Your task to perform on an android device: Go to accessibility settings Image 0: 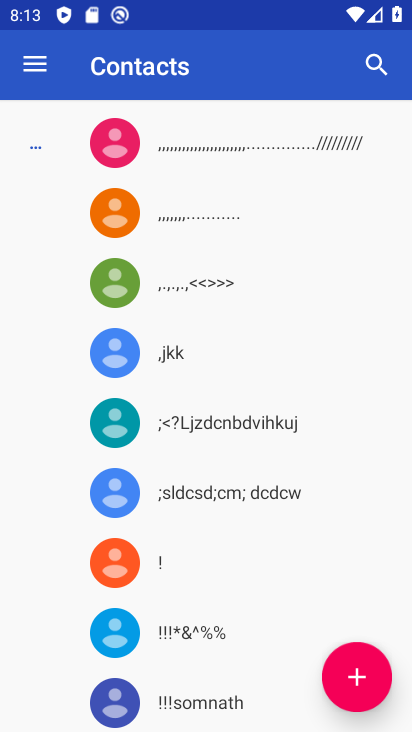
Step 0: press home button
Your task to perform on an android device: Go to accessibility settings Image 1: 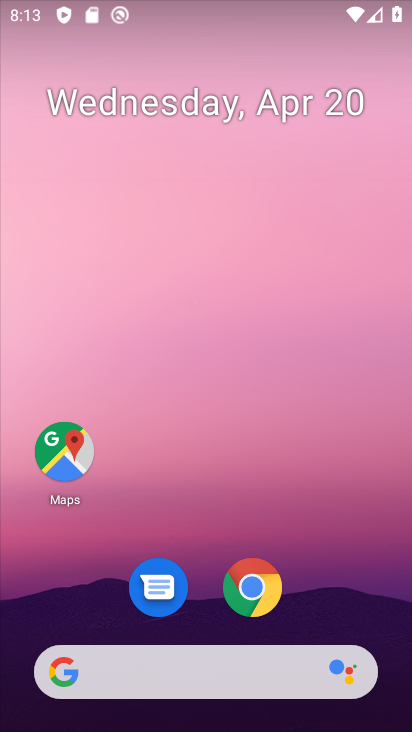
Step 1: drag from (362, 592) to (341, 192)
Your task to perform on an android device: Go to accessibility settings Image 2: 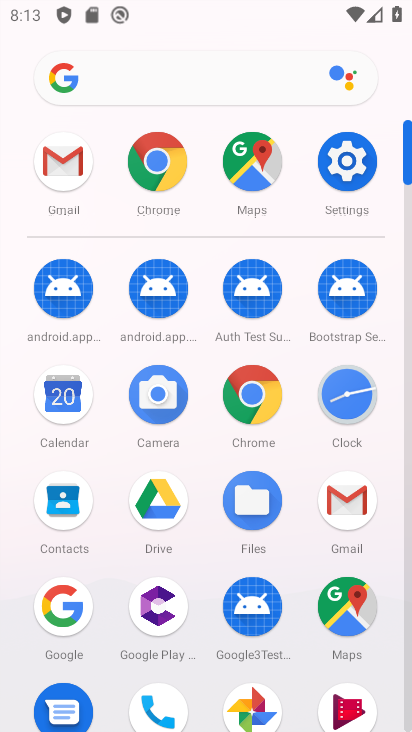
Step 2: click (346, 168)
Your task to perform on an android device: Go to accessibility settings Image 3: 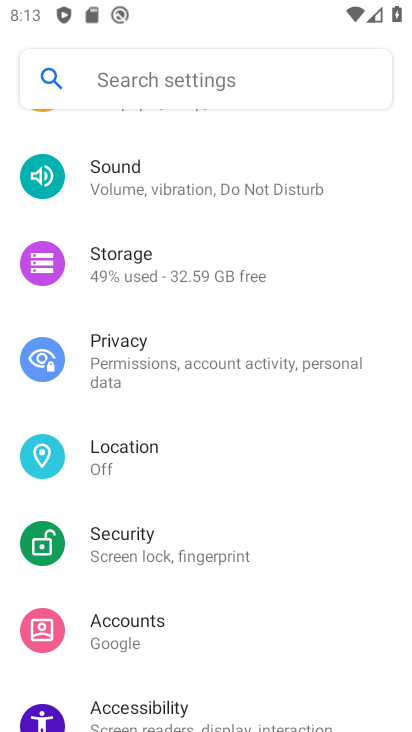
Step 3: drag from (350, 541) to (365, 375)
Your task to perform on an android device: Go to accessibility settings Image 4: 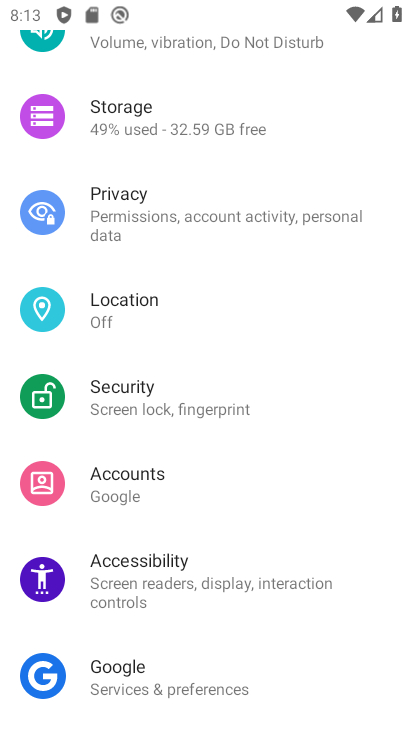
Step 4: drag from (350, 616) to (362, 418)
Your task to perform on an android device: Go to accessibility settings Image 5: 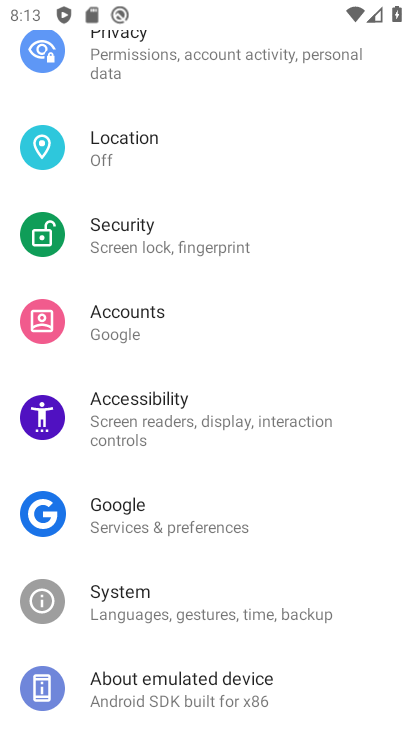
Step 5: drag from (343, 634) to (344, 477)
Your task to perform on an android device: Go to accessibility settings Image 6: 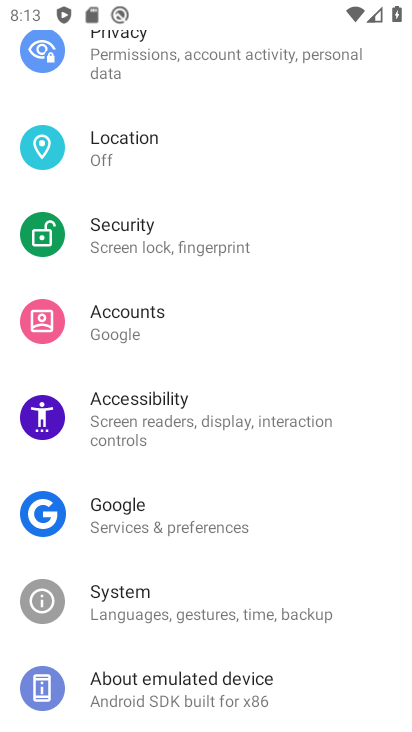
Step 6: drag from (353, 343) to (347, 512)
Your task to perform on an android device: Go to accessibility settings Image 7: 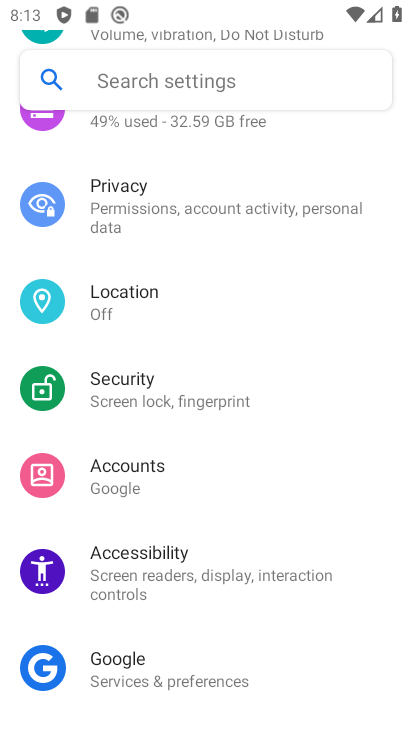
Step 7: drag from (357, 308) to (345, 440)
Your task to perform on an android device: Go to accessibility settings Image 8: 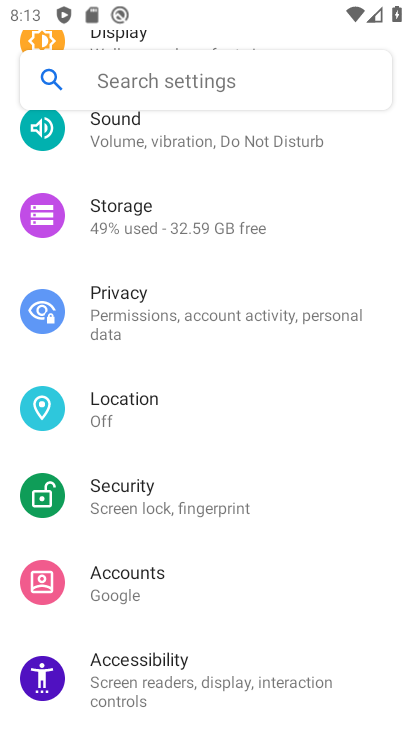
Step 8: drag from (381, 247) to (355, 422)
Your task to perform on an android device: Go to accessibility settings Image 9: 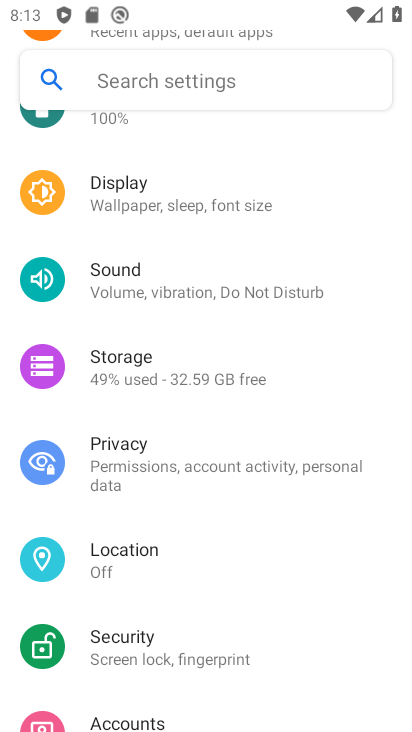
Step 9: drag from (376, 253) to (361, 431)
Your task to perform on an android device: Go to accessibility settings Image 10: 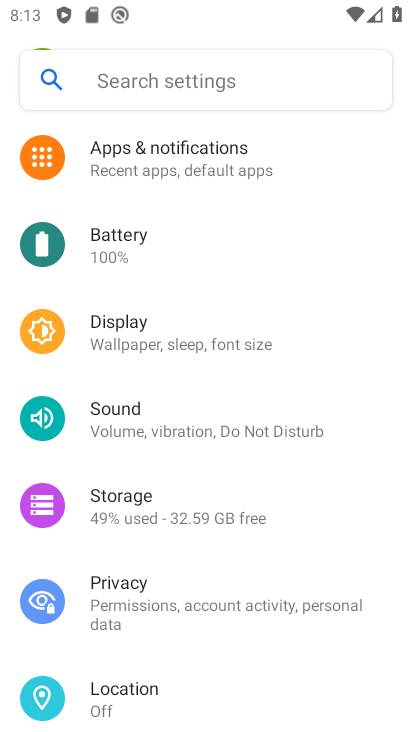
Step 10: drag from (378, 262) to (357, 466)
Your task to perform on an android device: Go to accessibility settings Image 11: 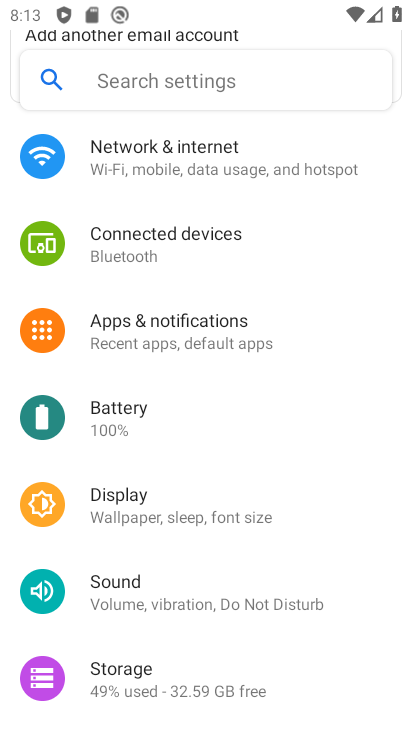
Step 11: drag from (359, 530) to (366, 363)
Your task to perform on an android device: Go to accessibility settings Image 12: 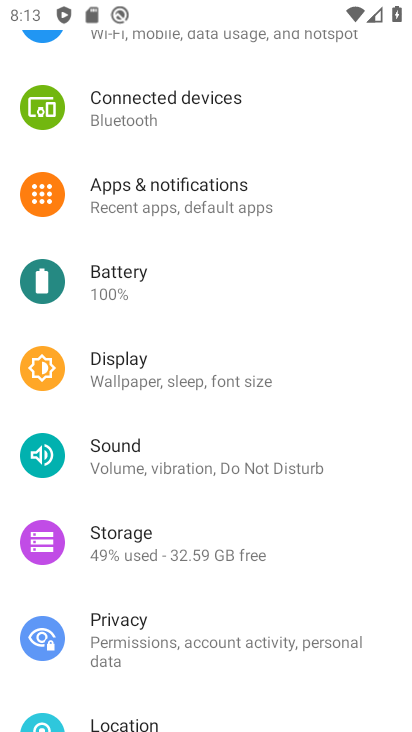
Step 12: drag from (356, 545) to (360, 410)
Your task to perform on an android device: Go to accessibility settings Image 13: 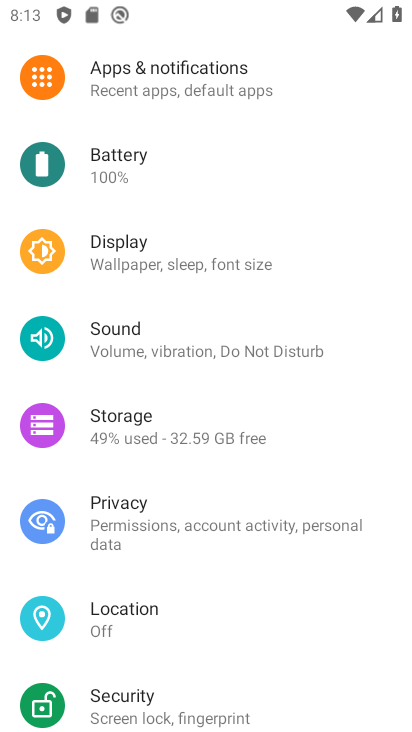
Step 13: drag from (343, 580) to (357, 436)
Your task to perform on an android device: Go to accessibility settings Image 14: 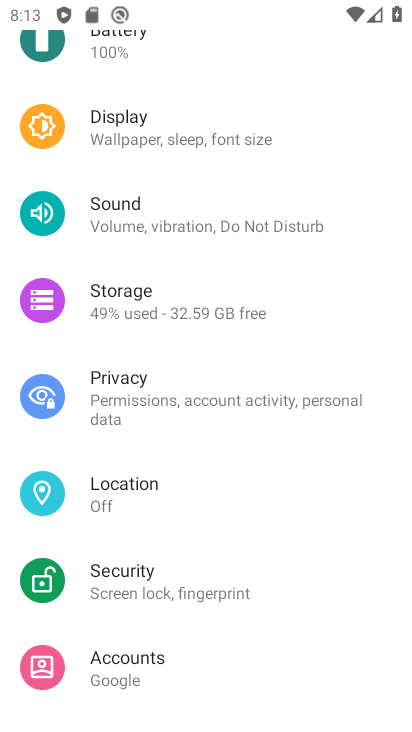
Step 14: drag from (351, 606) to (349, 476)
Your task to perform on an android device: Go to accessibility settings Image 15: 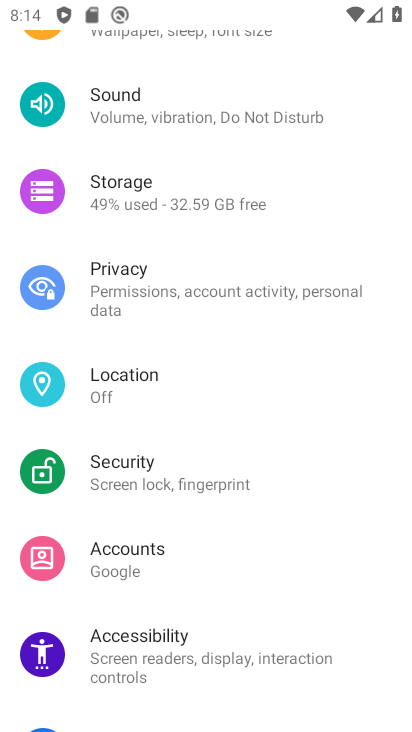
Step 15: drag from (354, 581) to (358, 490)
Your task to perform on an android device: Go to accessibility settings Image 16: 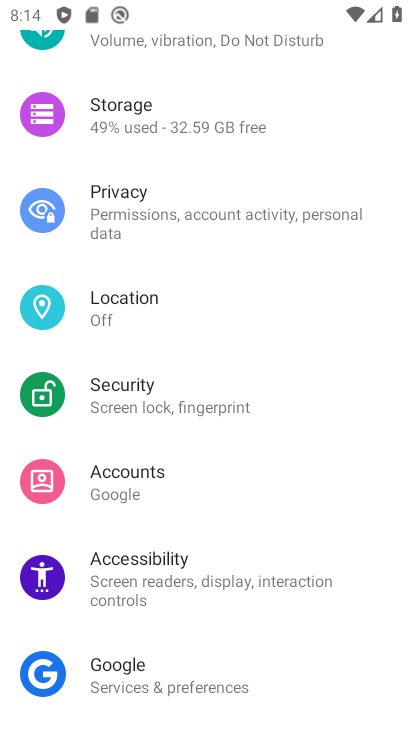
Step 16: click (241, 581)
Your task to perform on an android device: Go to accessibility settings Image 17: 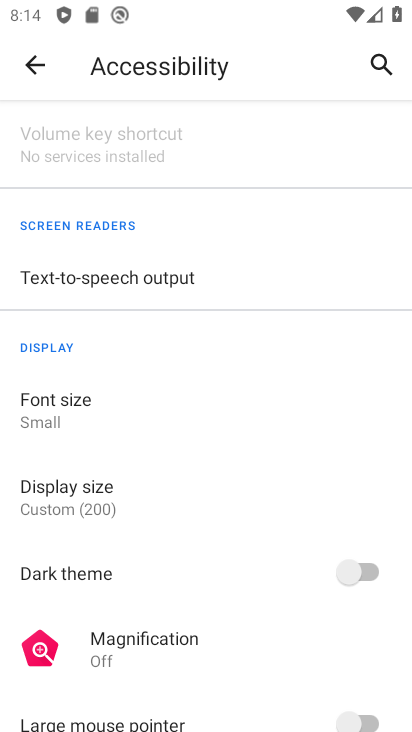
Step 17: task complete